Your task to perform on an android device: Go to eBay Image 0: 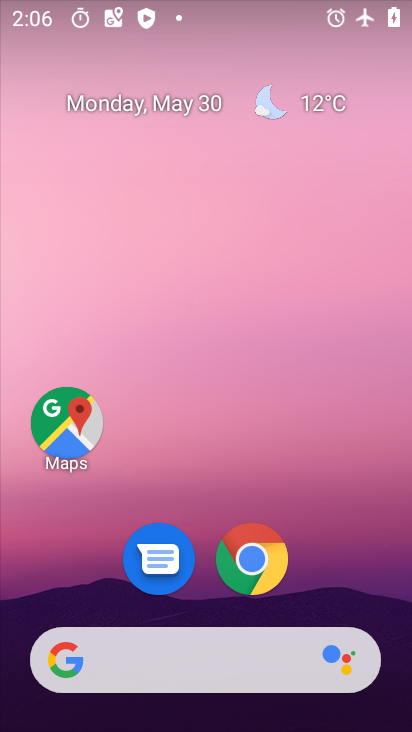
Step 0: click (267, 561)
Your task to perform on an android device: Go to eBay Image 1: 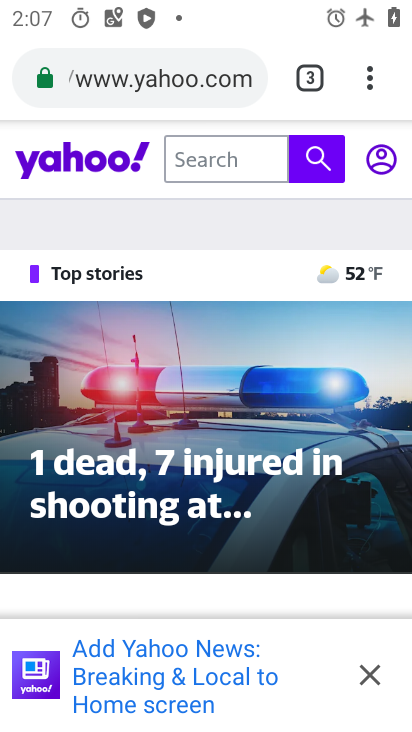
Step 1: click (305, 63)
Your task to perform on an android device: Go to eBay Image 2: 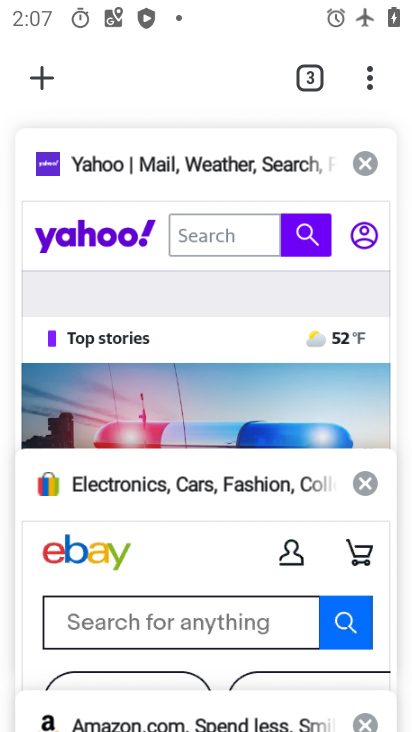
Step 2: click (139, 505)
Your task to perform on an android device: Go to eBay Image 3: 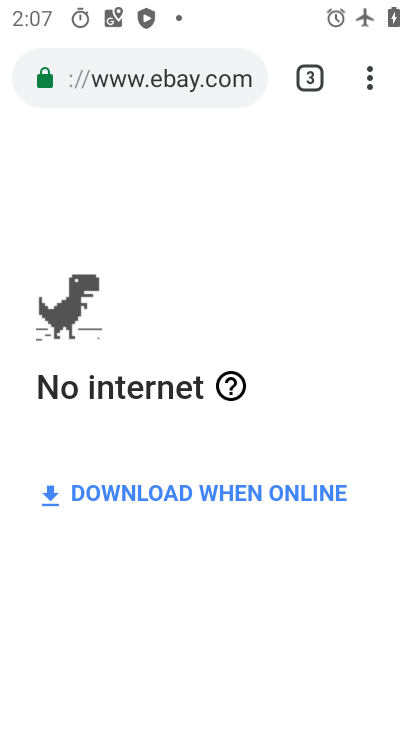
Step 3: drag from (318, 17) to (272, 575)
Your task to perform on an android device: Go to eBay Image 4: 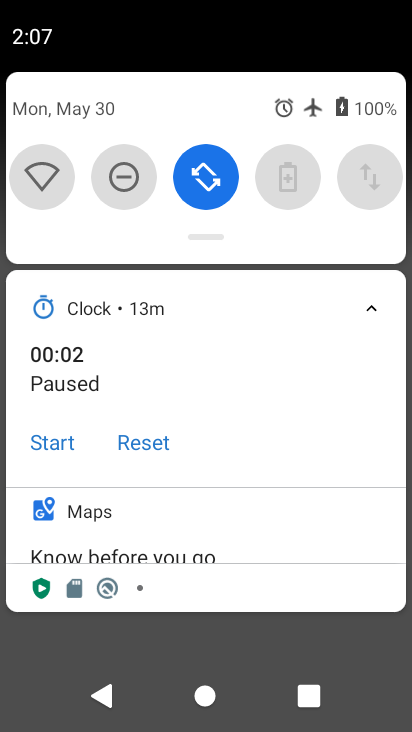
Step 4: drag from (194, 245) to (194, 645)
Your task to perform on an android device: Go to eBay Image 5: 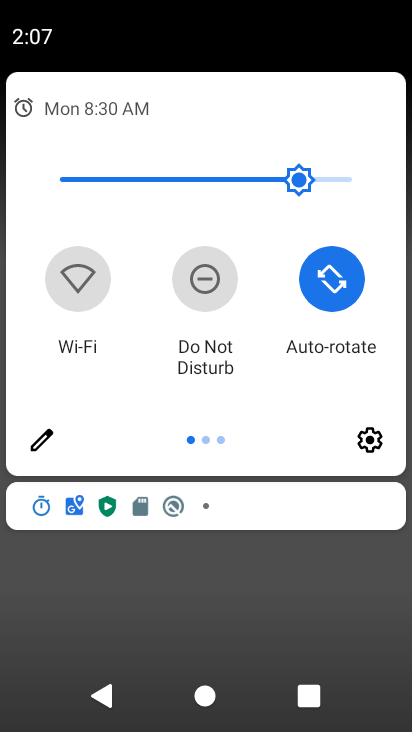
Step 5: drag from (351, 309) to (35, 294)
Your task to perform on an android device: Go to eBay Image 6: 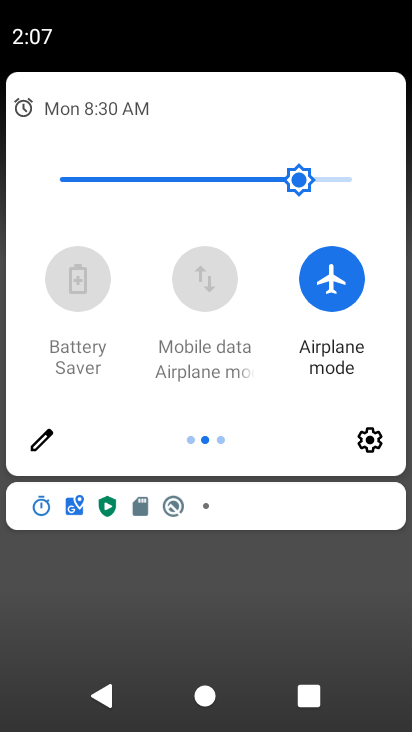
Step 6: click (333, 280)
Your task to perform on an android device: Go to eBay Image 7: 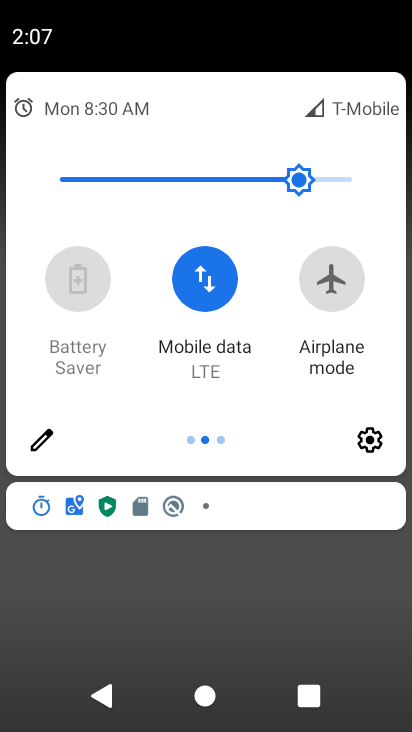
Step 7: click (224, 596)
Your task to perform on an android device: Go to eBay Image 8: 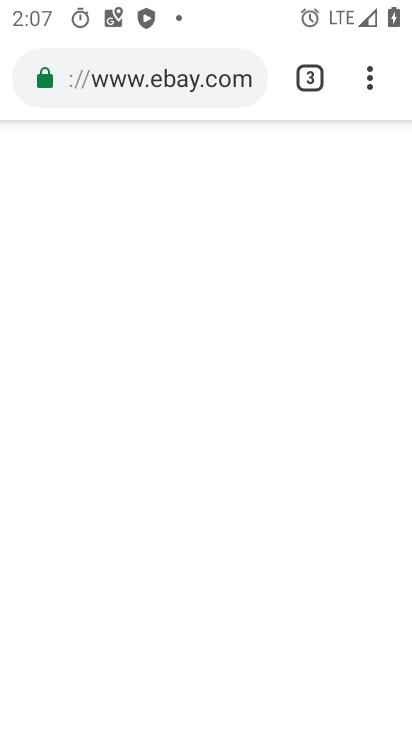
Step 8: task complete